Your task to perform on an android device: empty trash in google photos Image 0: 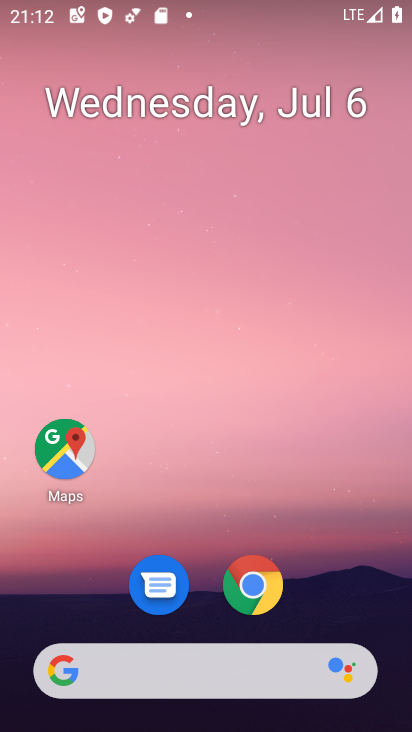
Step 0: drag from (206, 478) to (220, 20)
Your task to perform on an android device: empty trash in google photos Image 1: 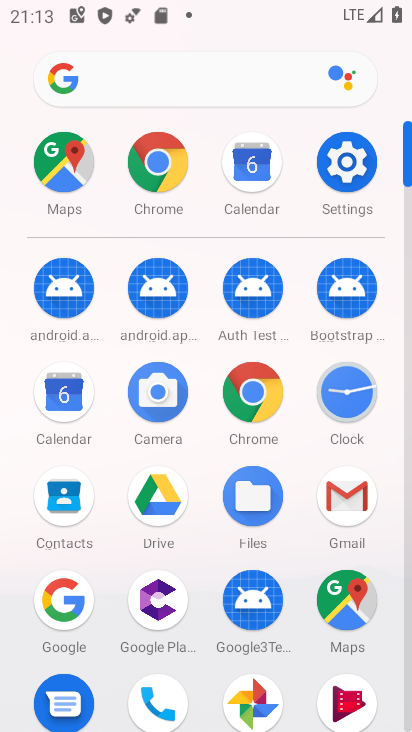
Step 1: click (249, 692)
Your task to perform on an android device: empty trash in google photos Image 2: 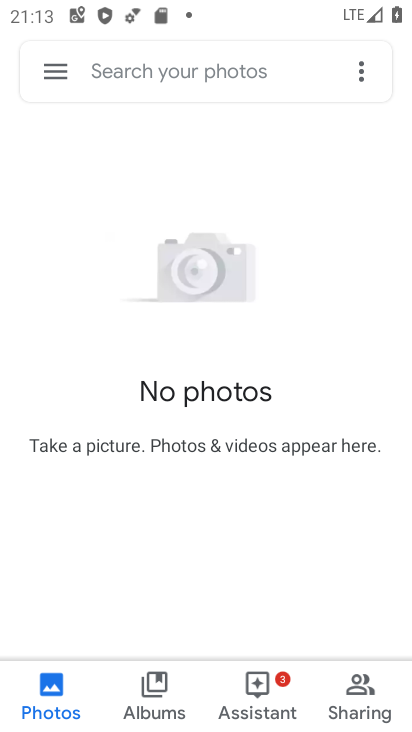
Step 2: click (55, 71)
Your task to perform on an android device: empty trash in google photos Image 3: 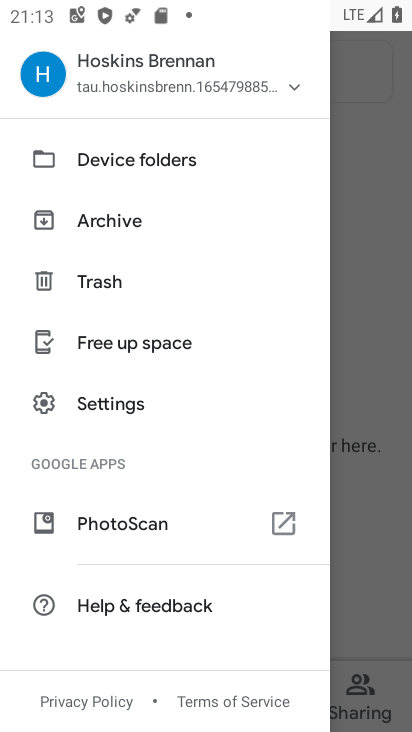
Step 3: click (107, 276)
Your task to perform on an android device: empty trash in google photos Image 4: 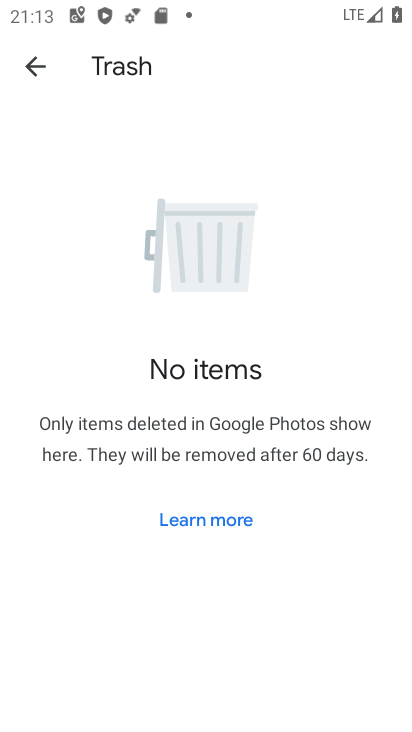
Step 4: task complete